Your task to perform on an android device: turn off picture-in-picture Image 0: 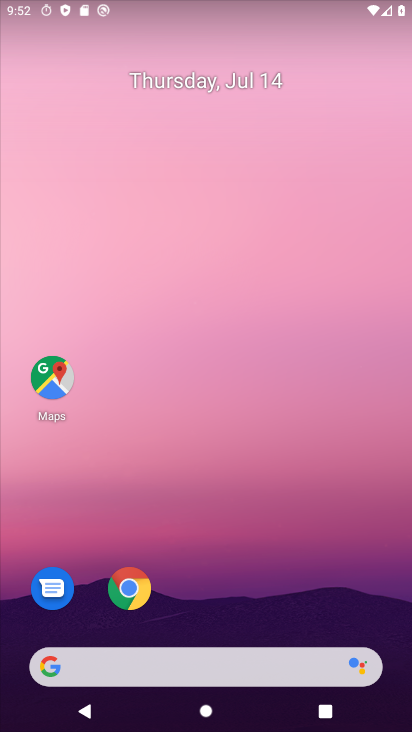
Step 0: click (130, 601)
Your task to perform on an android device: turn off picture-in-picture Image 1: 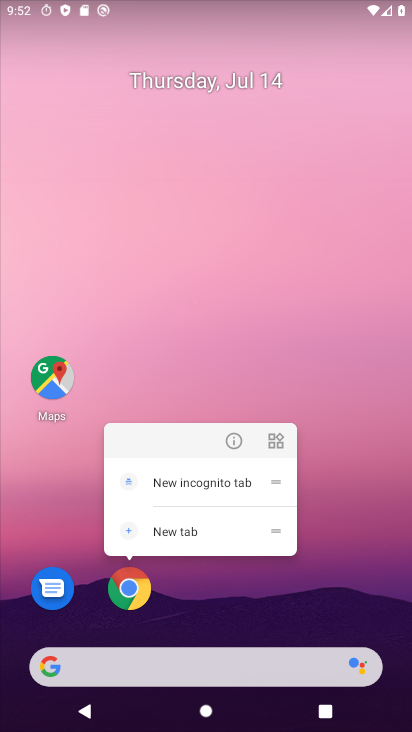
Step 1: click (238, 441)
Your task to perform on an android device: turn off picture-in-picture Image 2: 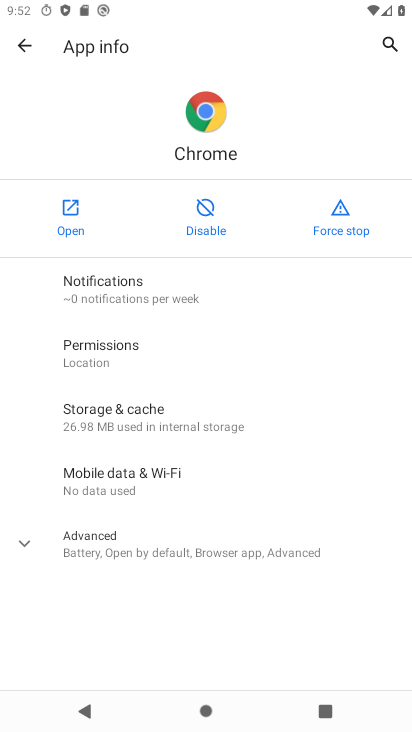
Step 2: click (153, 541)
Your task to perform on an android device: turn off picture-in-picture Image 3: 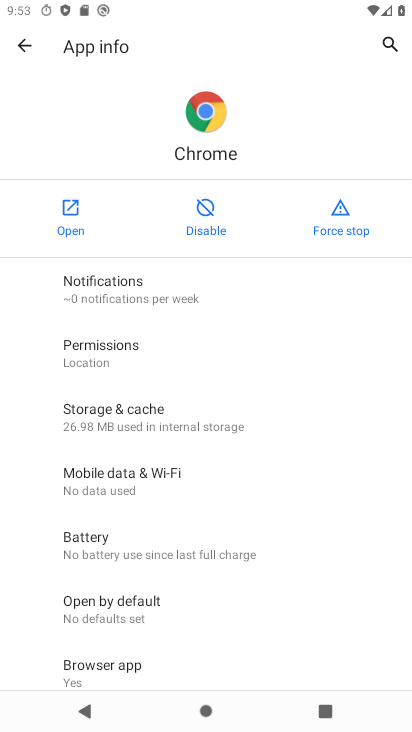
Step 3: drag from (115, 674) to (101, 316)
Your task to perform on an android device: turn off picture-in-picture Image 4: 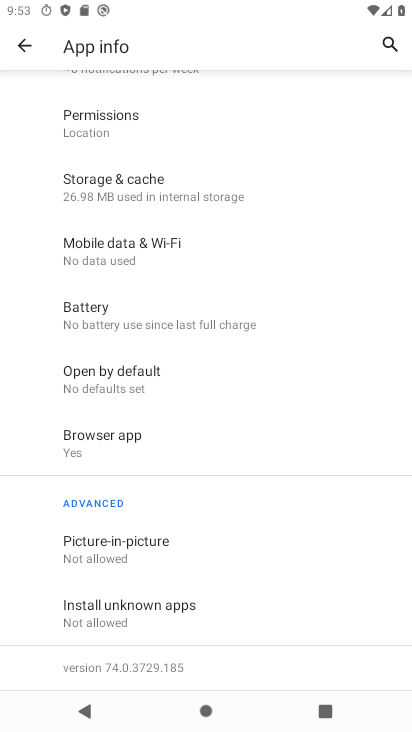
Step 4: click (96, 551)
Your task to perform on an android device: turn off picture-in-picture Image 5: 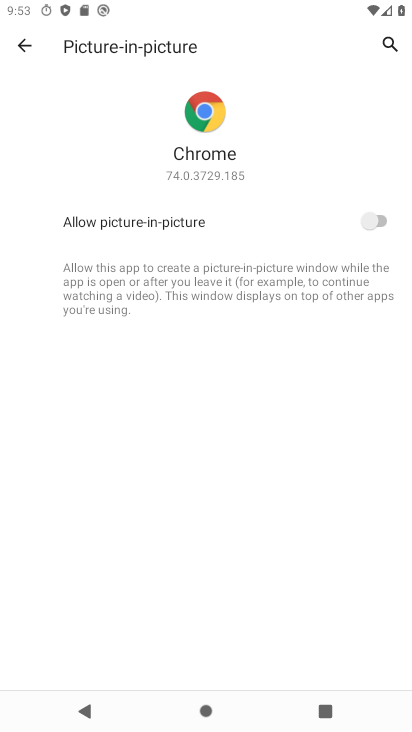
Step 5: task complete